Your task to perform on an android device: Open settings Image 0: 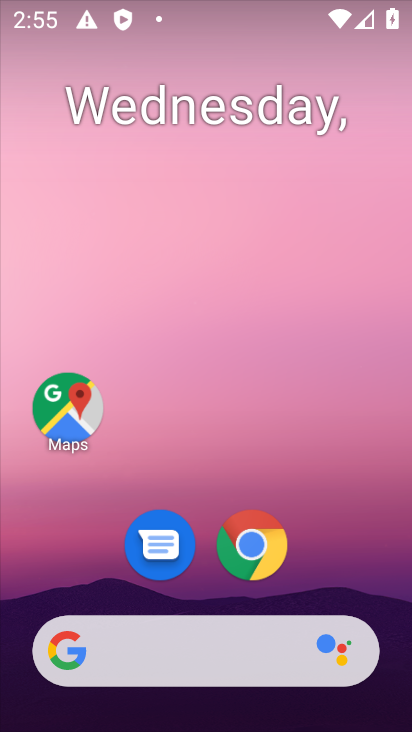
Step 0: drag from (160, 629) to (239, 13)
Your task to perform on an android device: Open settings Image 1: 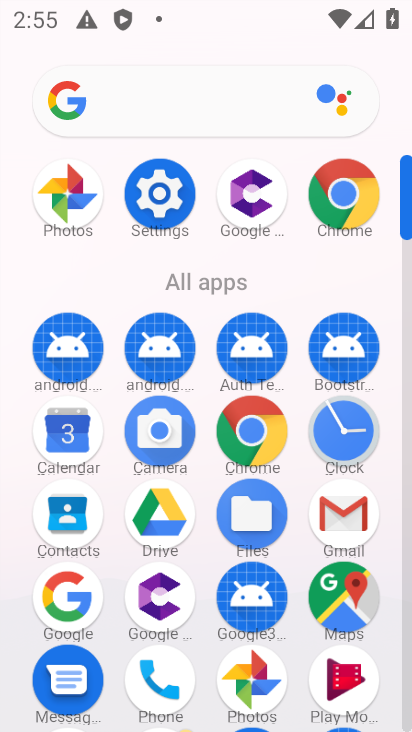
Step 1: click (144, 191)
Your task to perform on an android device: Open settings Image 2: 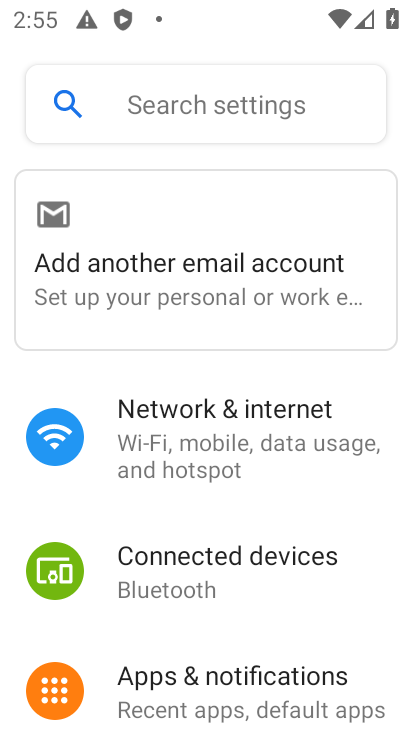
Step 2: task complete